Your task to perform on an android device: set the timer Image 0: 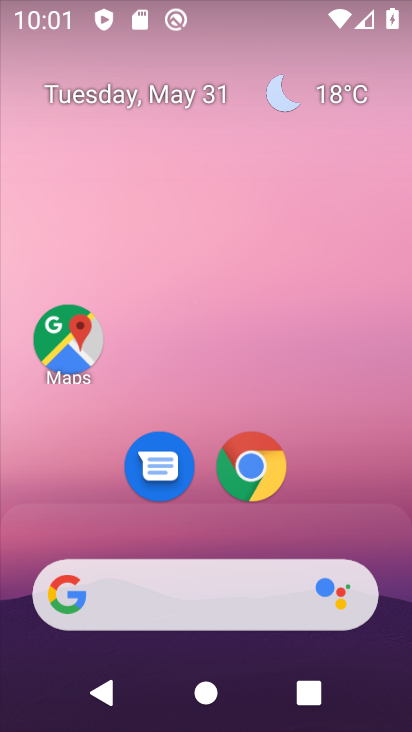
Step 0: drag from (364, 512) to (218, 10)
Your task to perform on an android device: set the timer Image 1: 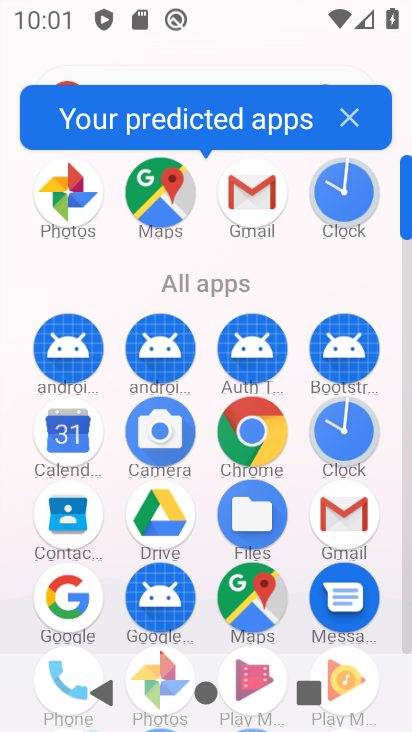
Step 1: click (340, 188)
Your task to perform on an android device: set the timer Image 2: 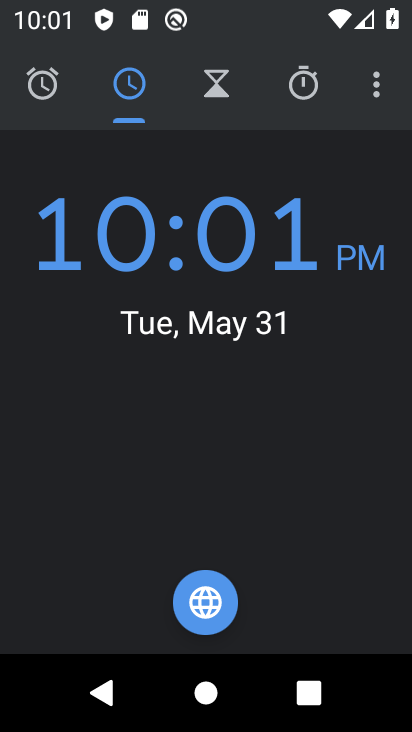
Step 2: drag from (378, 81) to (252, 149)
Your task to perform on an android device: set the timer Image 3: 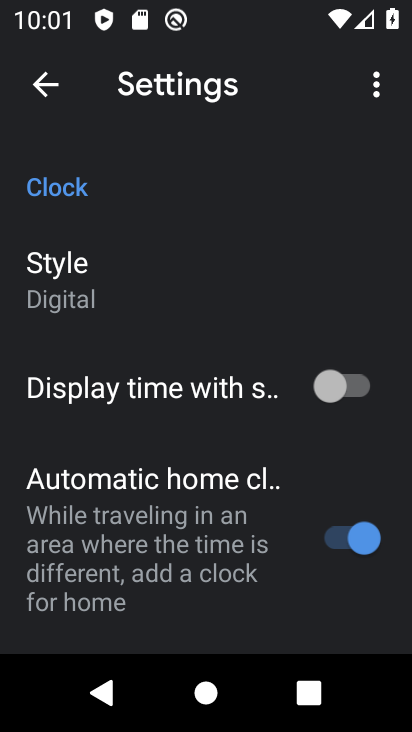
Step 3: drag from (189, 550) to (221, 129)
Your task to perform on an android device: set the timer Image 4: 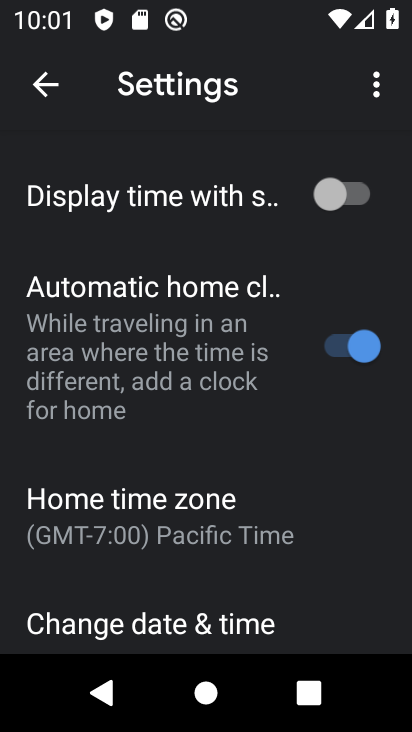
Step 4: drag from (166, 531) to (175, 214)
Your task to perform on an android device: set the timer Image 5: 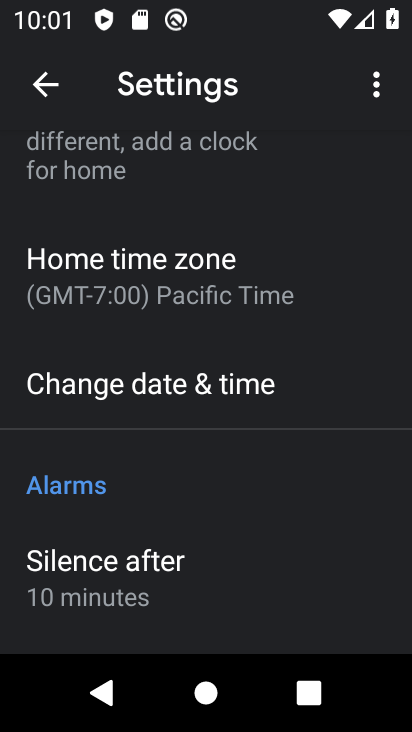
Step 5: click (138, 385)
Your task to perform on an android device: set the timer Image 6: 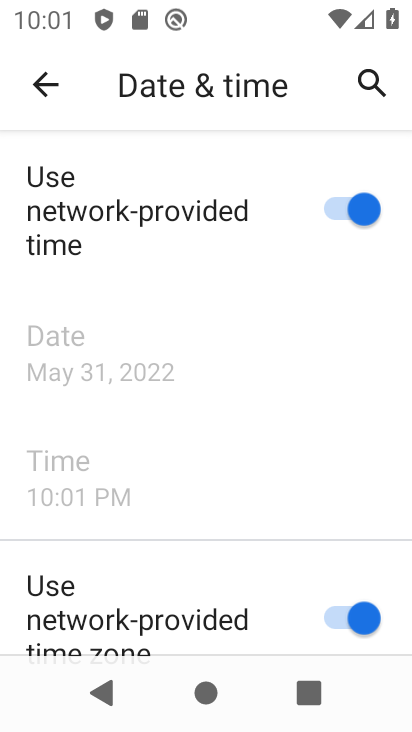
Step 6: drag from (143, 550) to (142, 163)
Your task to perform on an android device: set the timer Image 7: 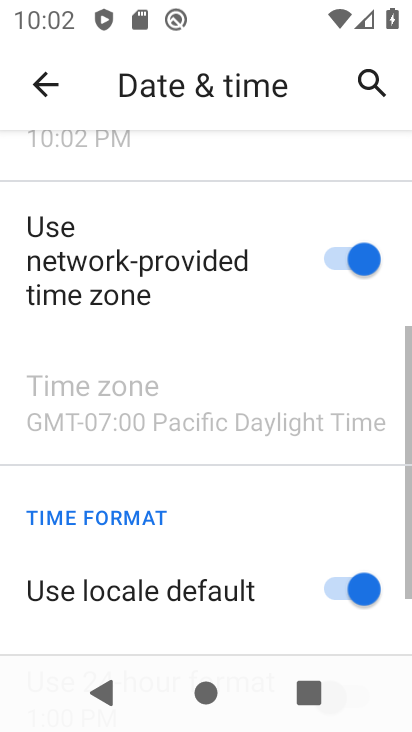
Step 7: drag from (164, 541) to (168, 140)
Your task to perform on an android device: set the timer Image 8: 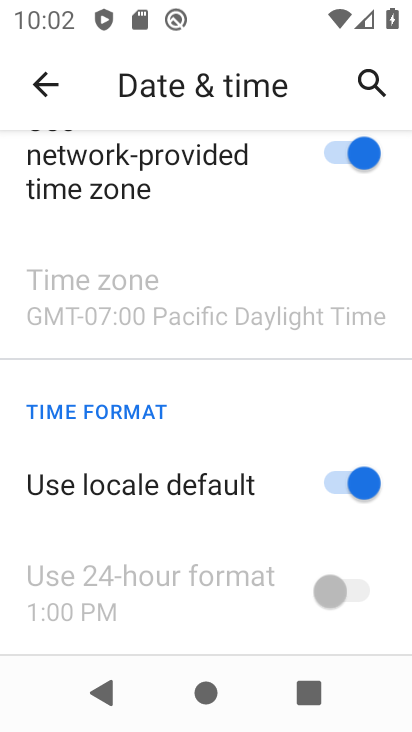
Step 8: drag from (179, 575) to (194, 281)
Your task to perform on an android device: set the timer Image 9: 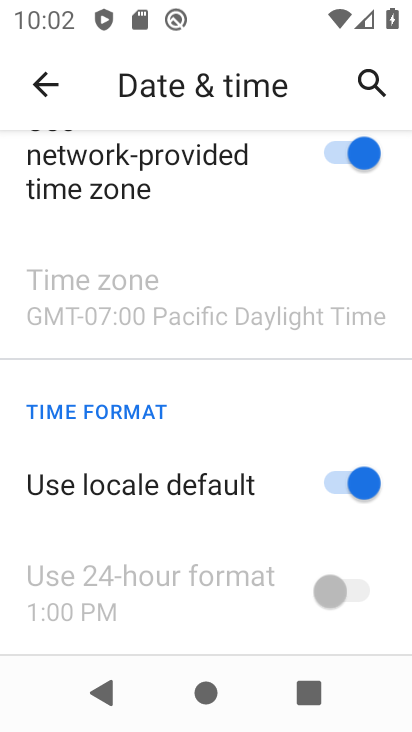
Step 9: click (55, 80)
Your task to perform on an android device: set the timer Image 10: 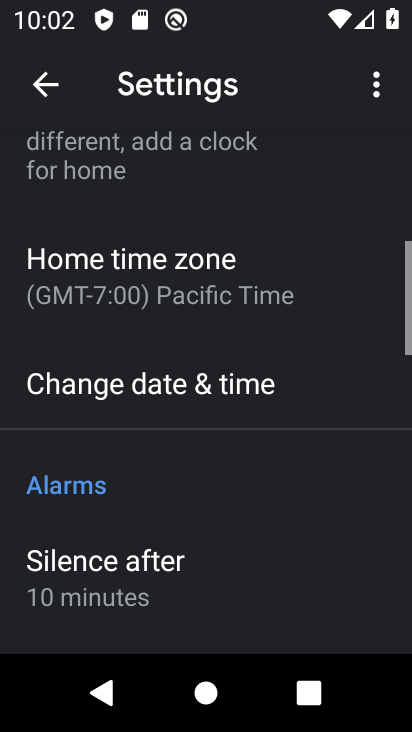
Step 10: click (55, 80)
Your task to perform on an android device: set the timer Image 11: 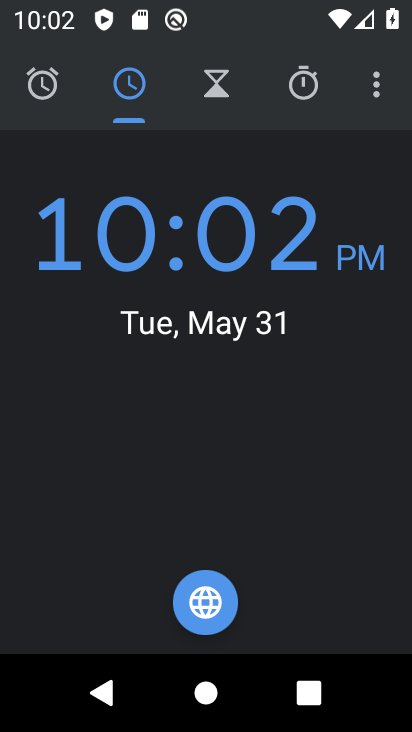
Step 11: click (219, 74)
Your task to perform on an android device: set the timer Image 12: 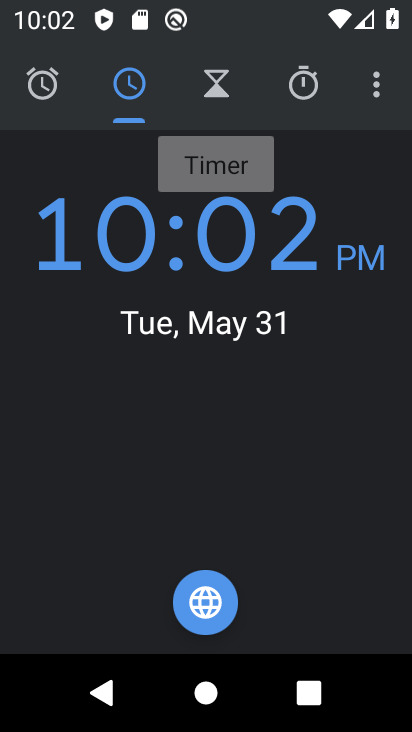
Step 12: click (219, 75)
Your task to perform on an android device: set the timer Image 13: 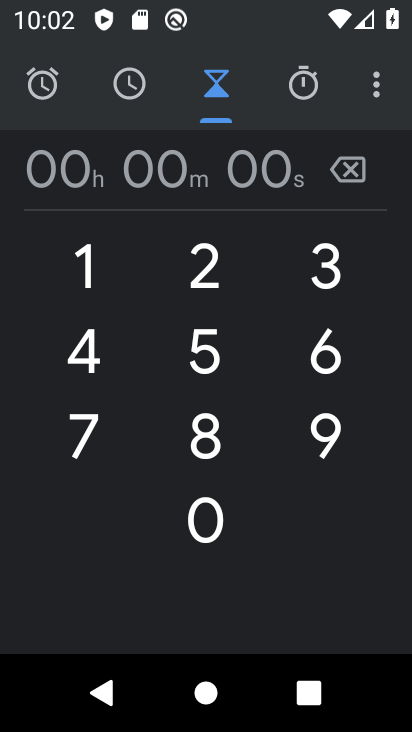
Step 13: click (200, 332)
Your task to perform on an android device: set the timer Image 14: 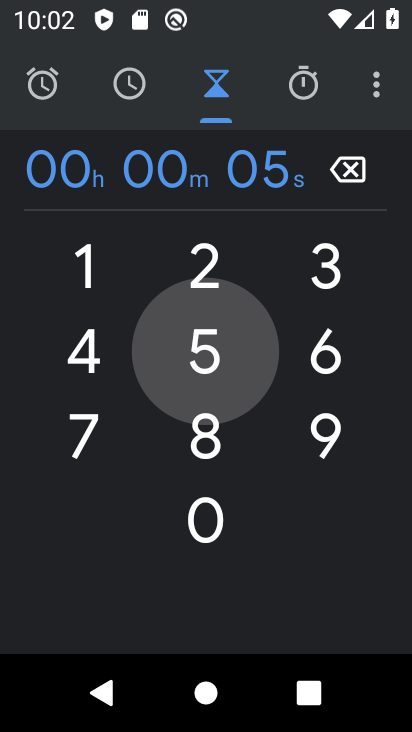
Step 14: click (198, 261)
Your task to perform on an android device: set the timer Image 15: 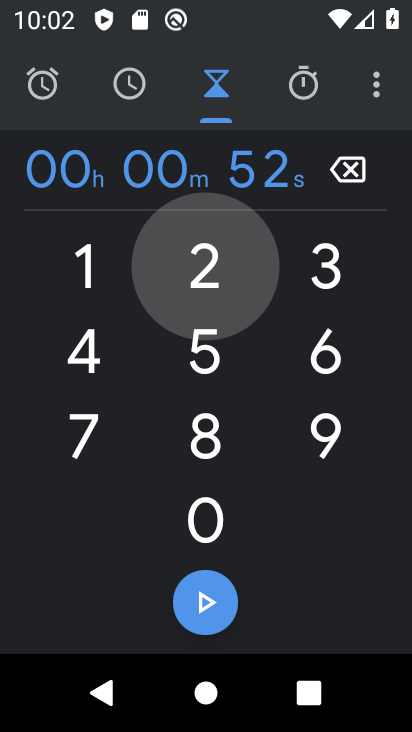
Step 15: click (193, 430)
Your task to perform on an android device: set the timer Image 16: 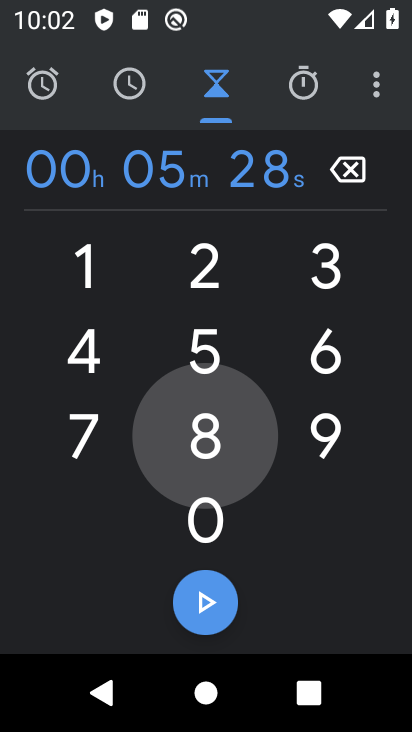
Step 16: click (198, 532)
Your task to perform on an android device: set the timer Image 17: 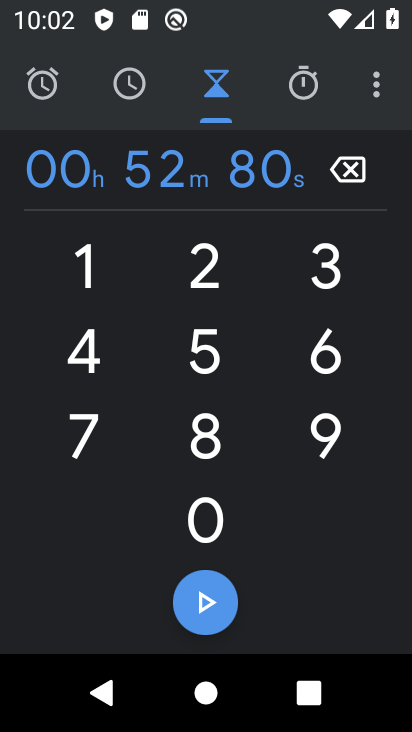
Step 17: click (206, 604)
Your task to perform on an android device: set the timer Image 18: 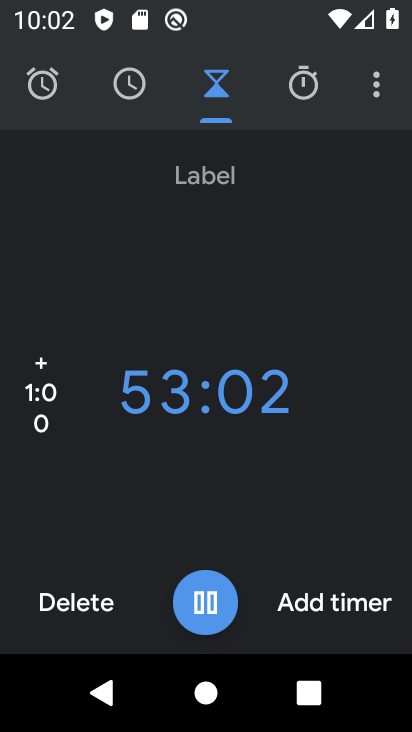
Step 18: task complete